Your task to perform on an android device: Go to Google Image 0: 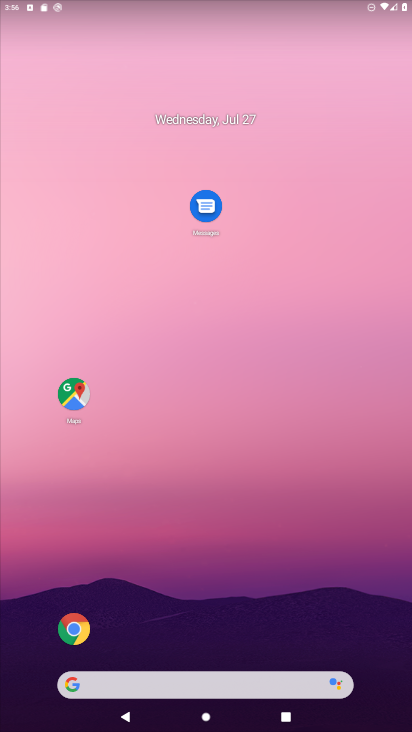
Step 0: click (187, 689)
Your task to perform on an android device: Go to Google Image 1: 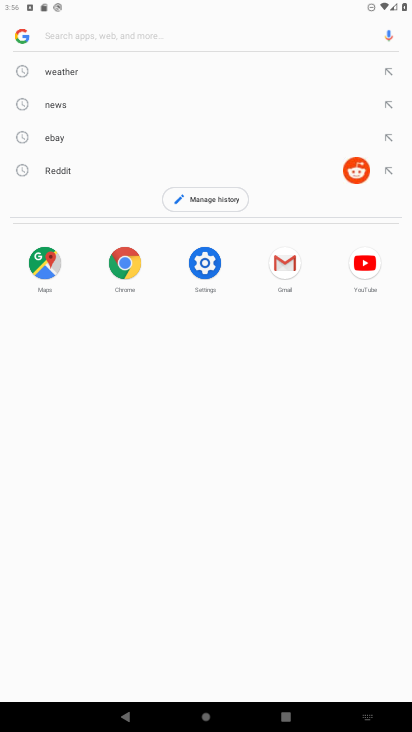
Step 1: task complete